Your task to perform on an android device: Go to Google Image 0: 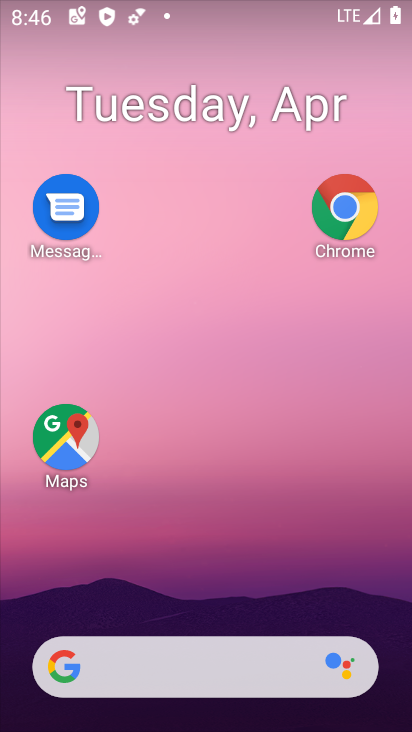
Step 0: click (255, 18)
Your task to perform on an android device: Go to Google Image 1: 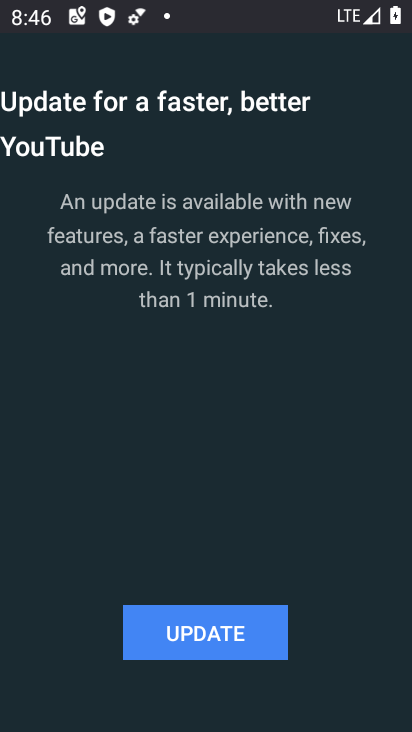
Step 1: press home button
Your task to perform on an android device: Go to Google Image 2: 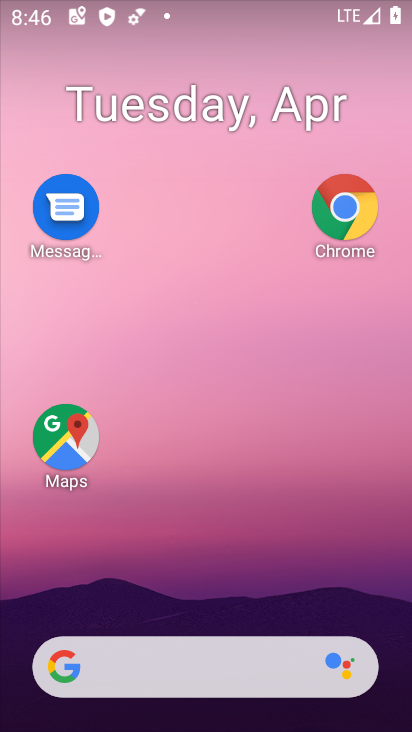
Step 2: drag from (190, 613) to (176, 9)
Your task to perform on an android device: Go to Google Image 3: 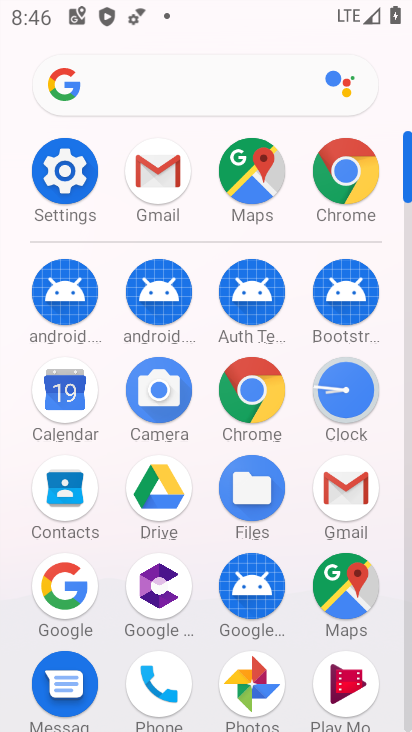
Step 3: click (78, 597)
Your task to perform on an android device: Go to Google Image 4: 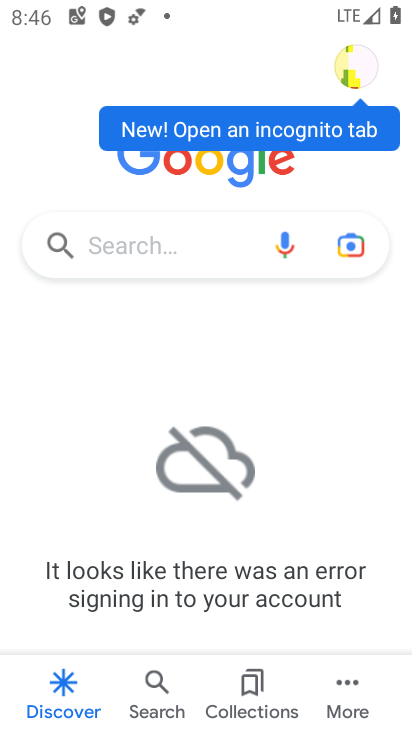
Step 4: task complete